Your task to perform on an android device: turn off data saver in the chrome app Image 0: 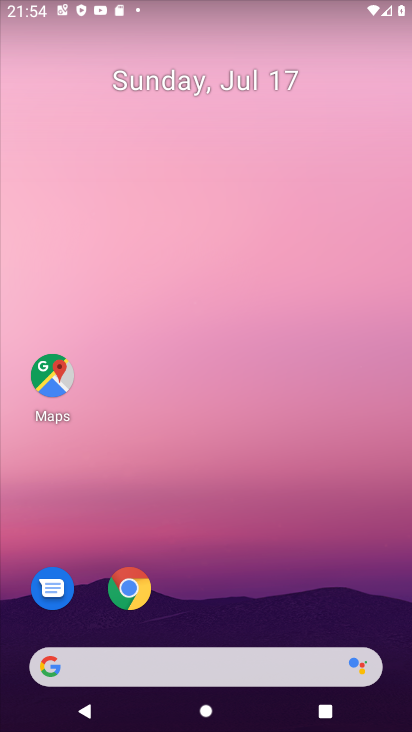
Step 0: click (153, 588)
Your task to perform on an android device: turn off data saver in the chrome app Image 1: 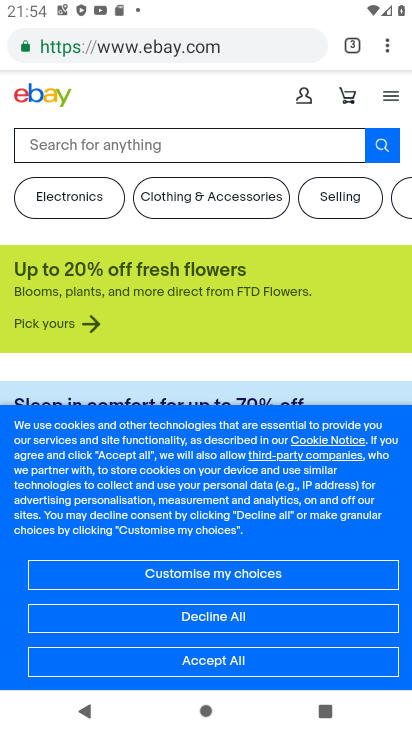
Step 1: drag from (399, 43) to (237, 556)
Your task to perform on an android device: turn off data saver in the chrome app Image 2: 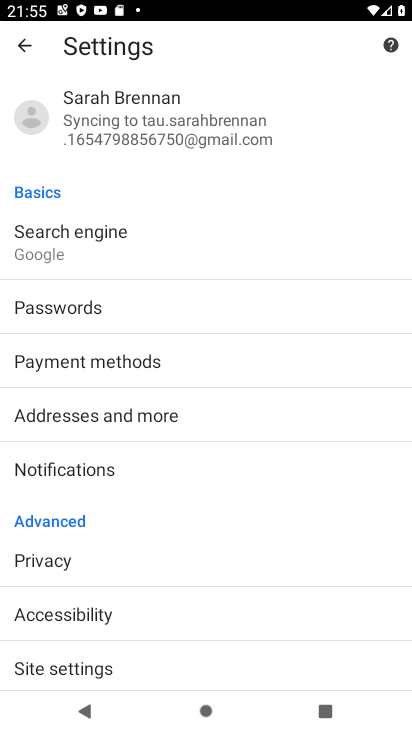
Step 2: drag from (309, 606) to (398, 444)
Your task to perform on an android device: turn off data saver in the chrome app Image 3: 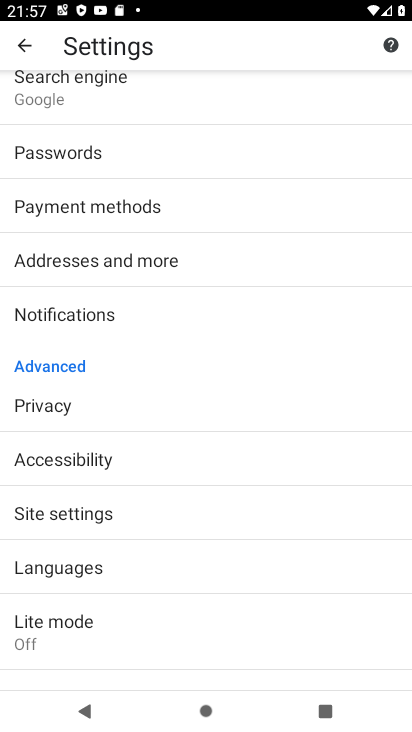
Step 3: click (88, 610)
Your task to perform on an android device: turn off data saver in the chrome app Image 4: 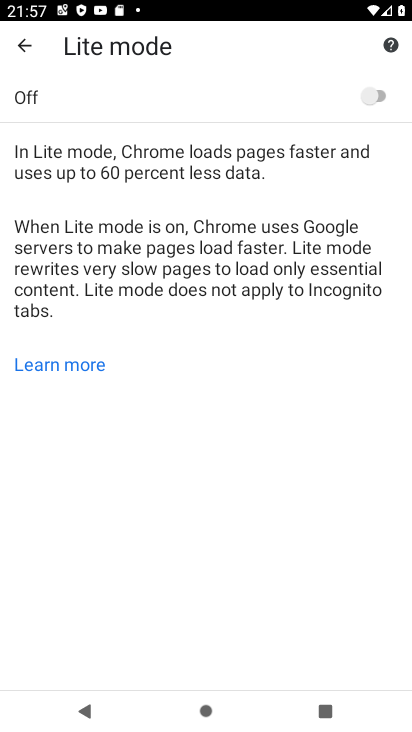
Step 4: task complete